Your task to perform on an android device: What's on my calendar today? Image 0: 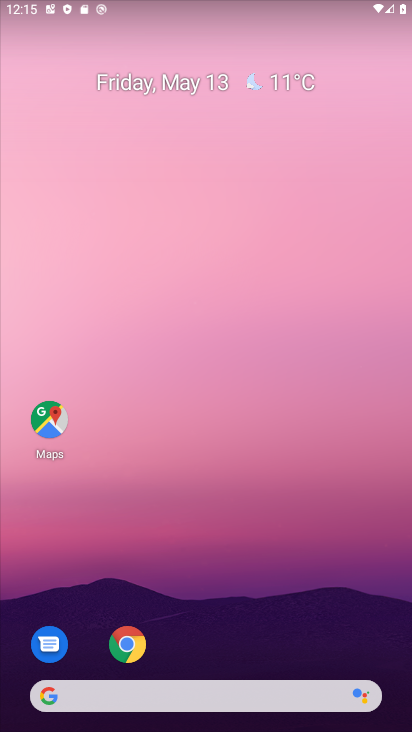
Step 0: drag from (196, 727) to (199, 171)
Your task to perform on an android device: What's on my calendar today? Image 1: 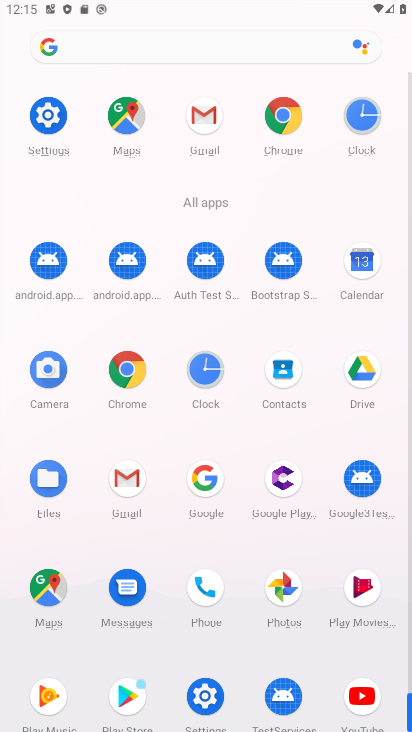
Step 1: click (362, 258)
Your task to perform on an android device: What's on my calendar today? Image 2: 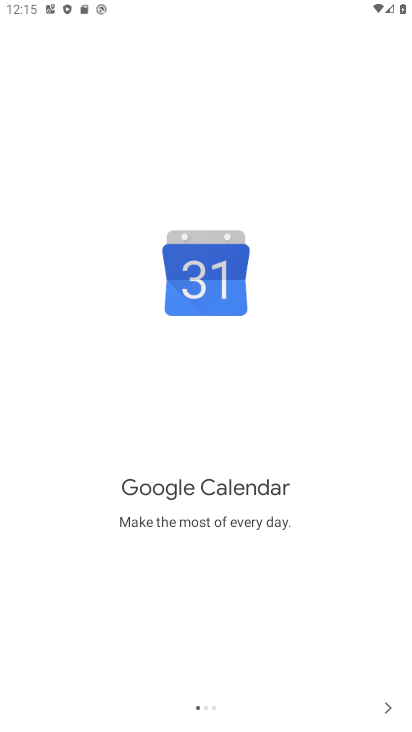
Step 2: click (385, 707)
Your task to perform on an android device: What's on my calendar today? Image 3: 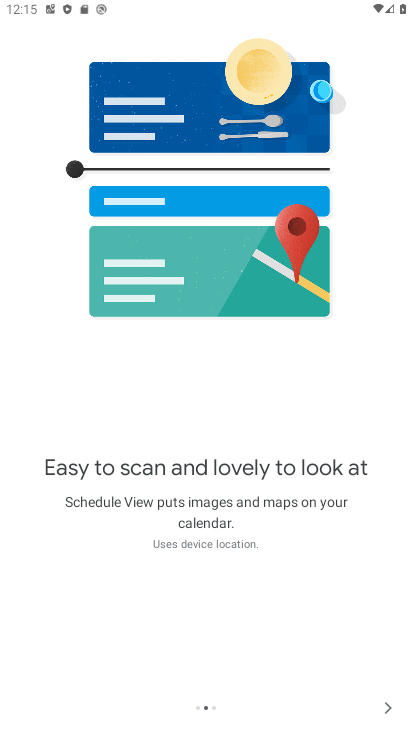
Step 3: click (385, 707)
Your task to perform on an android device: What's on my calendar today? Image 4: 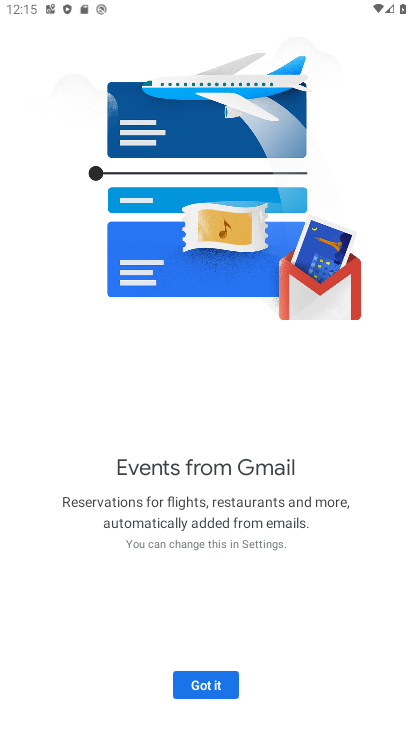
Step 4: click (215, 681)
Your task to perform on an android device: What's on my calendar today? Image 5: 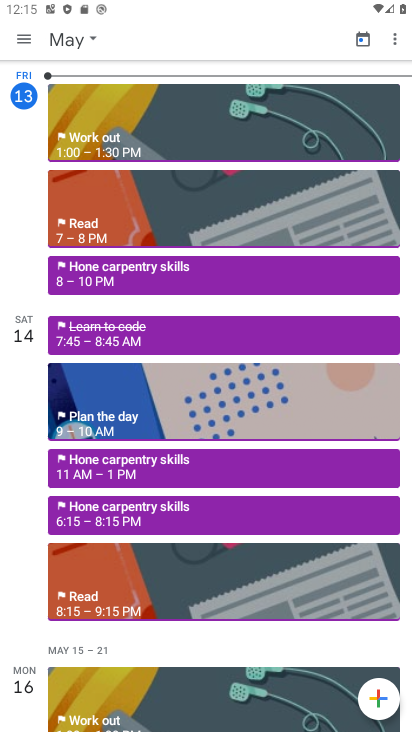
Step 5: click (66, 40)
Your task to perform on an android device: What's on my calendar today? Image 6: 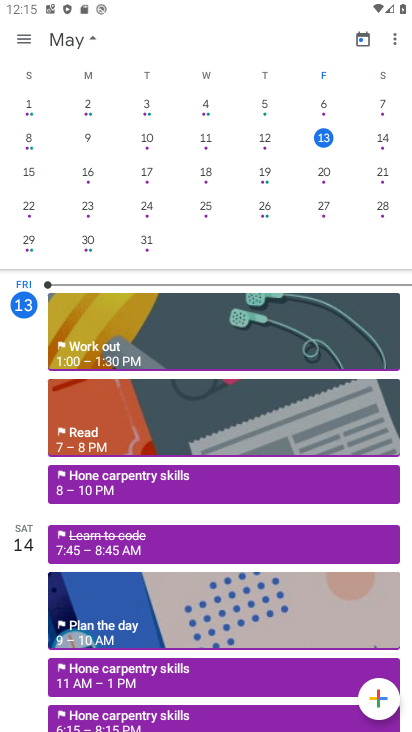
Step 6: click (324, 137)
Your task to perform on an android device: What's on my calendar today? Image 7: 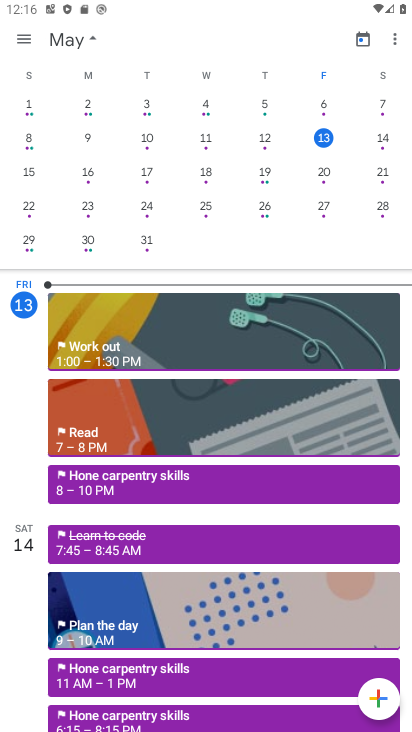
Step 7: task complete